Your task to perform on an android device: change the clock display to analog Image 0: 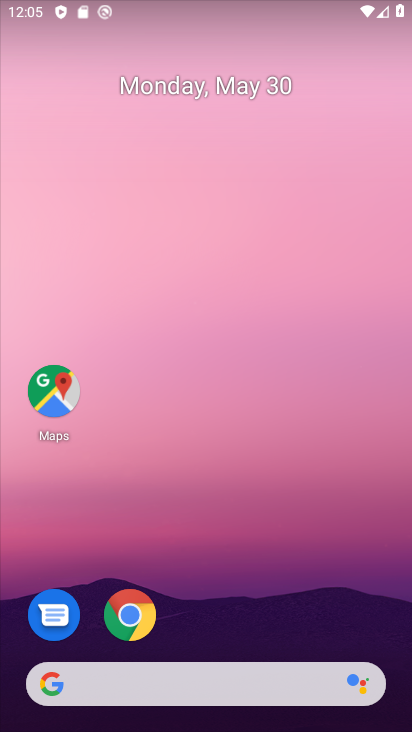
Step 0: drag from (221, 493) to (234, 285)
Your task to perform on an android device: change the clock display to analog Image 1: 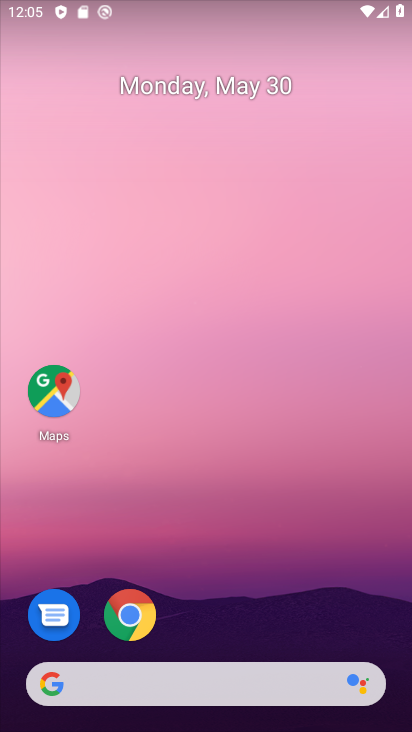
Step 1: drag from (275, 612) to (293, 267)
Your task to perform on an android device: change the clock display to analog Image 2: 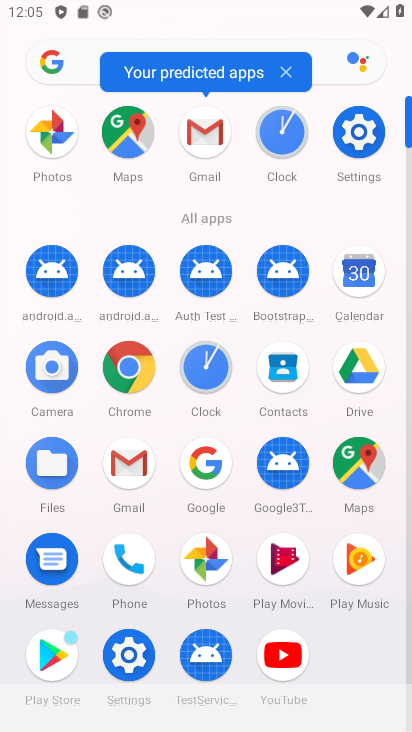
Step 2: click (269, 138)
Your task to perform on an android device: change the clock display to analog Image 3: 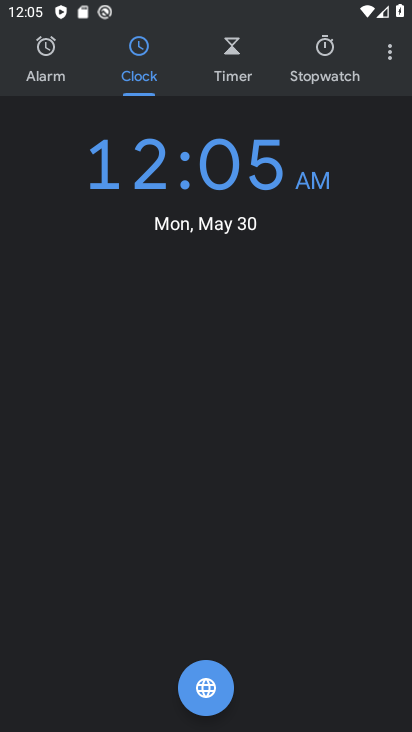
Step 3: click (393, 66)
Your task to perform on an android device: change the clock display to analog Image 4: 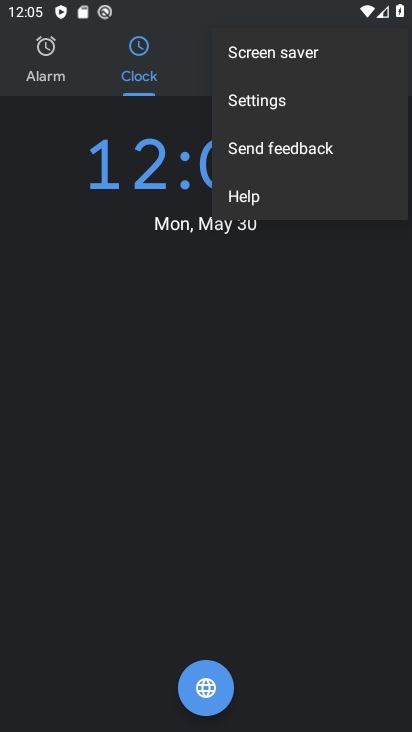
Step 4: click (267, 99)
Your task to perform on an android device: change the clock display to analog Image 5: 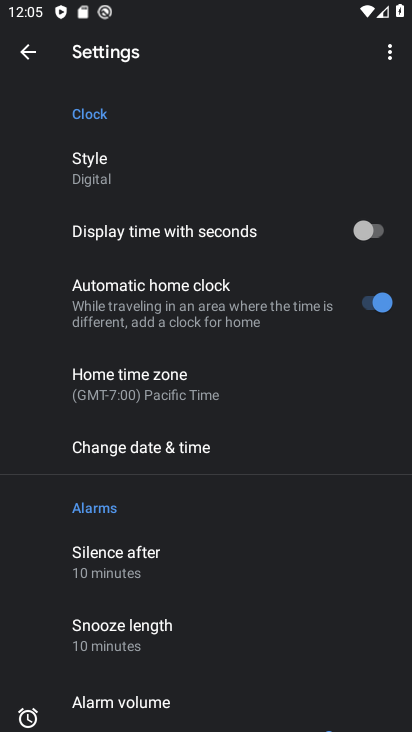
Step 5: drag from (156, 622) to (160, 300)
Your task to perform on an android device: change the clock display to analog Image 6: 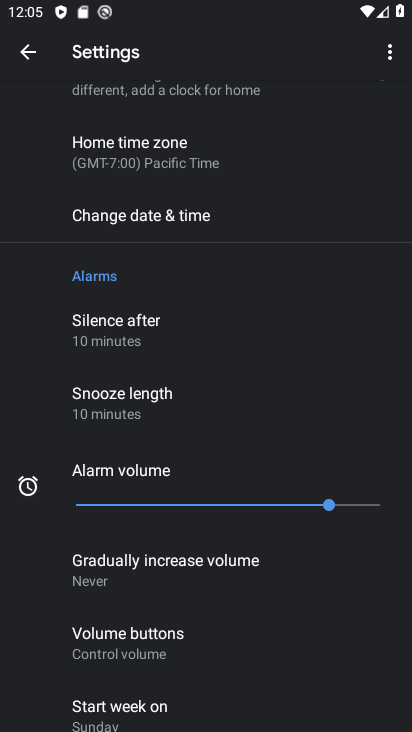
Step 6: drag from (178, 140) to (213, 609)
Your task to perform on an android device: change the clock display to analog Image 7: 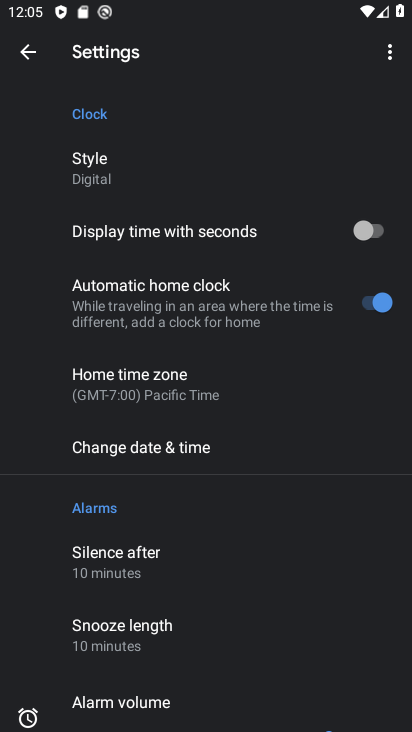
Step 7: click (99, 173)
Your task to perform on an android device: change the clock display to analog Image 8: 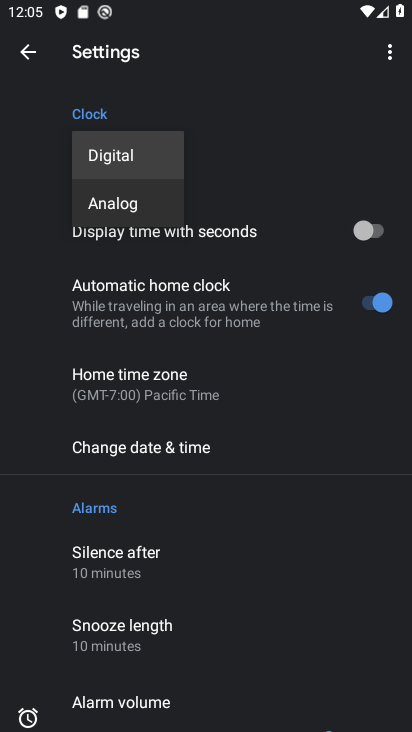
Step 8: click (148, 210)
Your task to perform on an android device: change the clock display to analog Image 9: 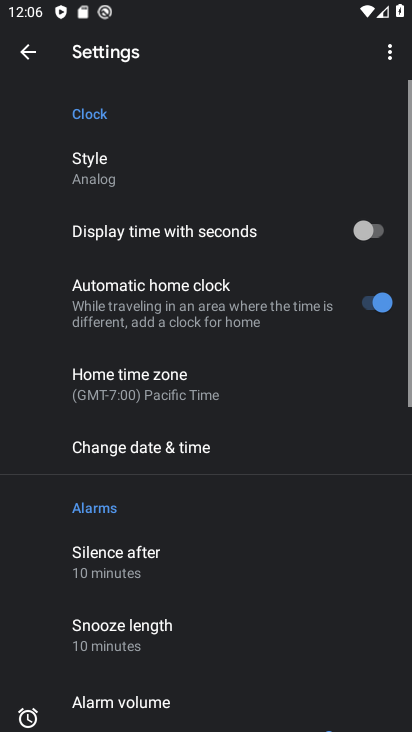
Step 9: task complete